Your task to perform on an android device: open app "Cash App" (install if not already installed) and go to login screen Image 0: 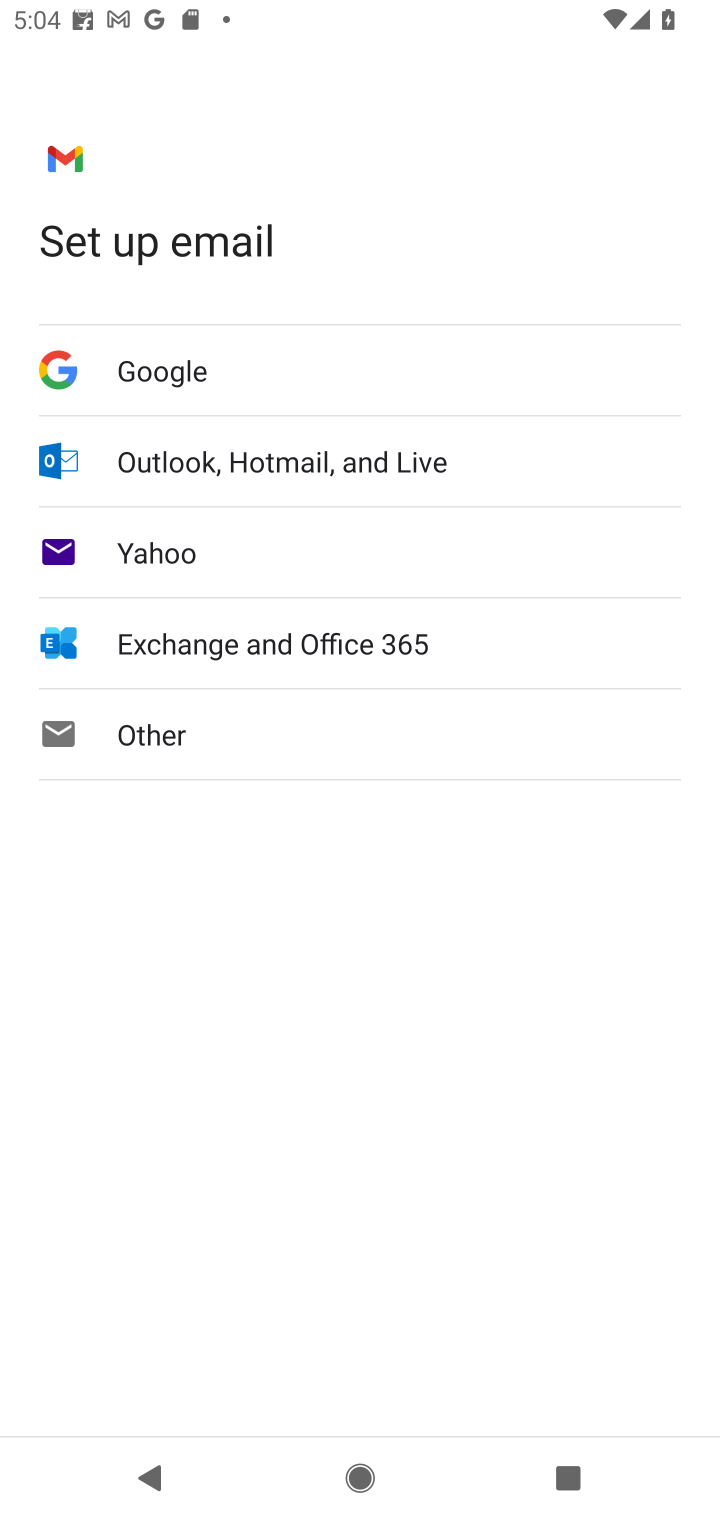
Step 0: press home button
Your task to perform on an android device: open app "Cash App" (install if not already installed) and go to login screen Image 1: 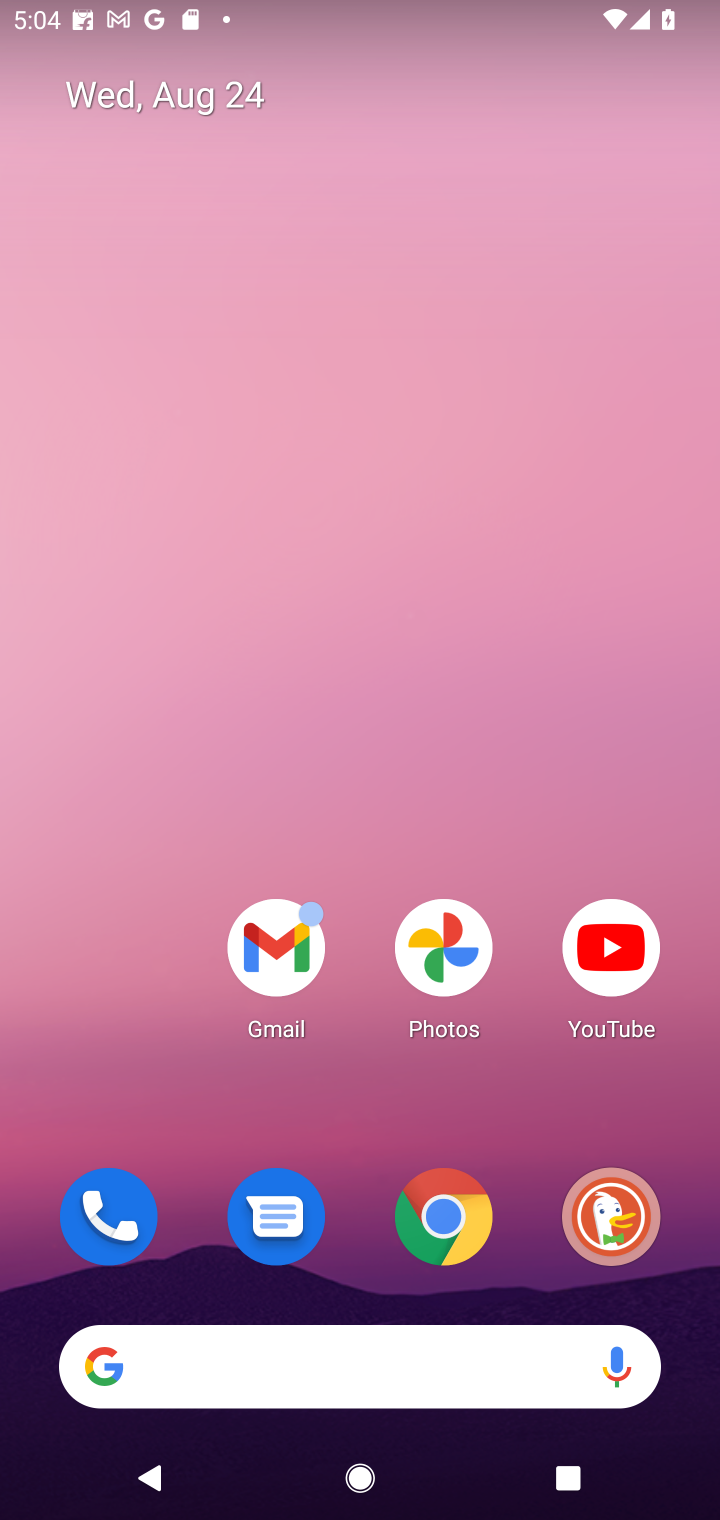
Step 1: drag from (370, 1026) to (364, 239)
Your task to perform on an android device: open app "Cash App" (install if not already installed) and go to login screen Image 2: 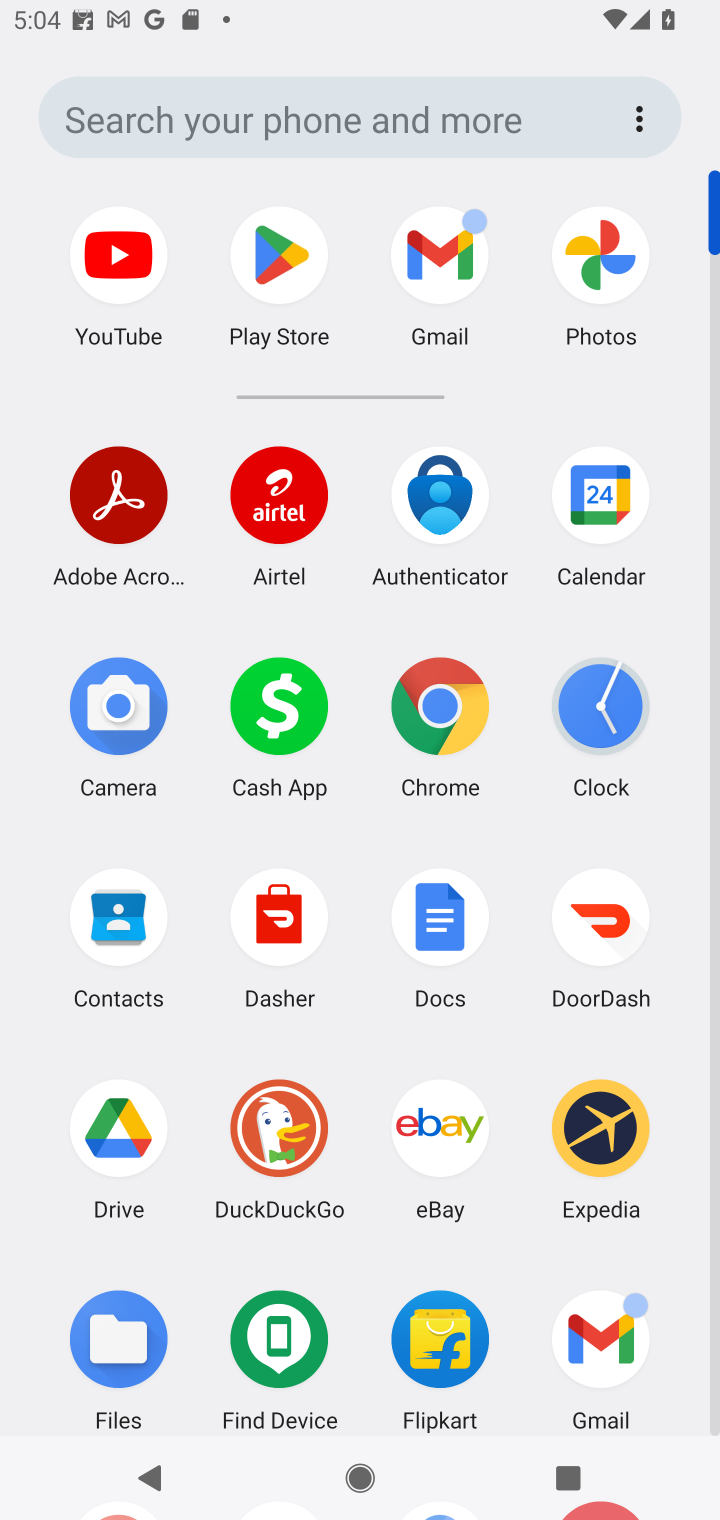
Step 2: click (317, 250)
Your task to perform on an android device: open app "Cash App" (install if not already installed) and go to login screen Image 3: 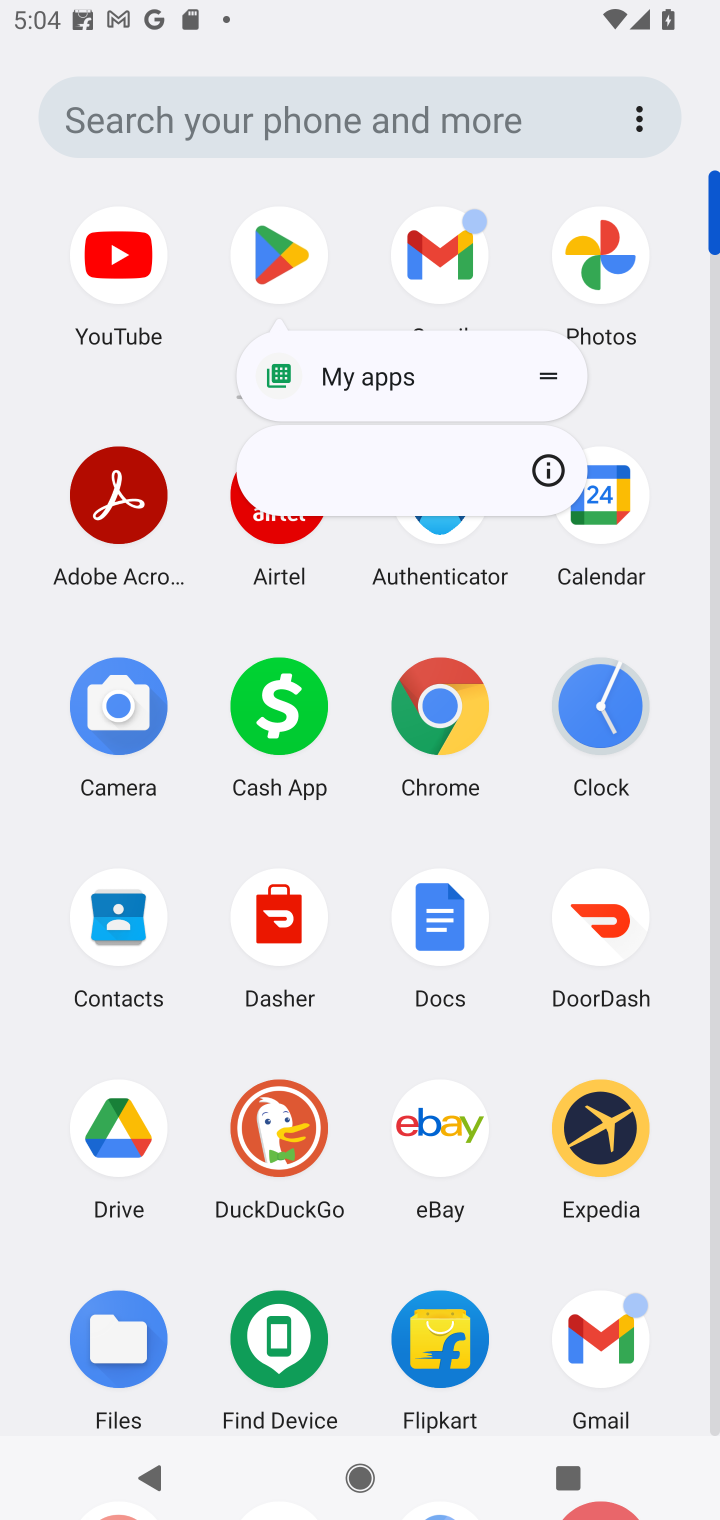
Step 3: click (254, 257)
Your task to perform on an android device: open app "Cash App" (install if not already installed) and go to login screen Image 4: 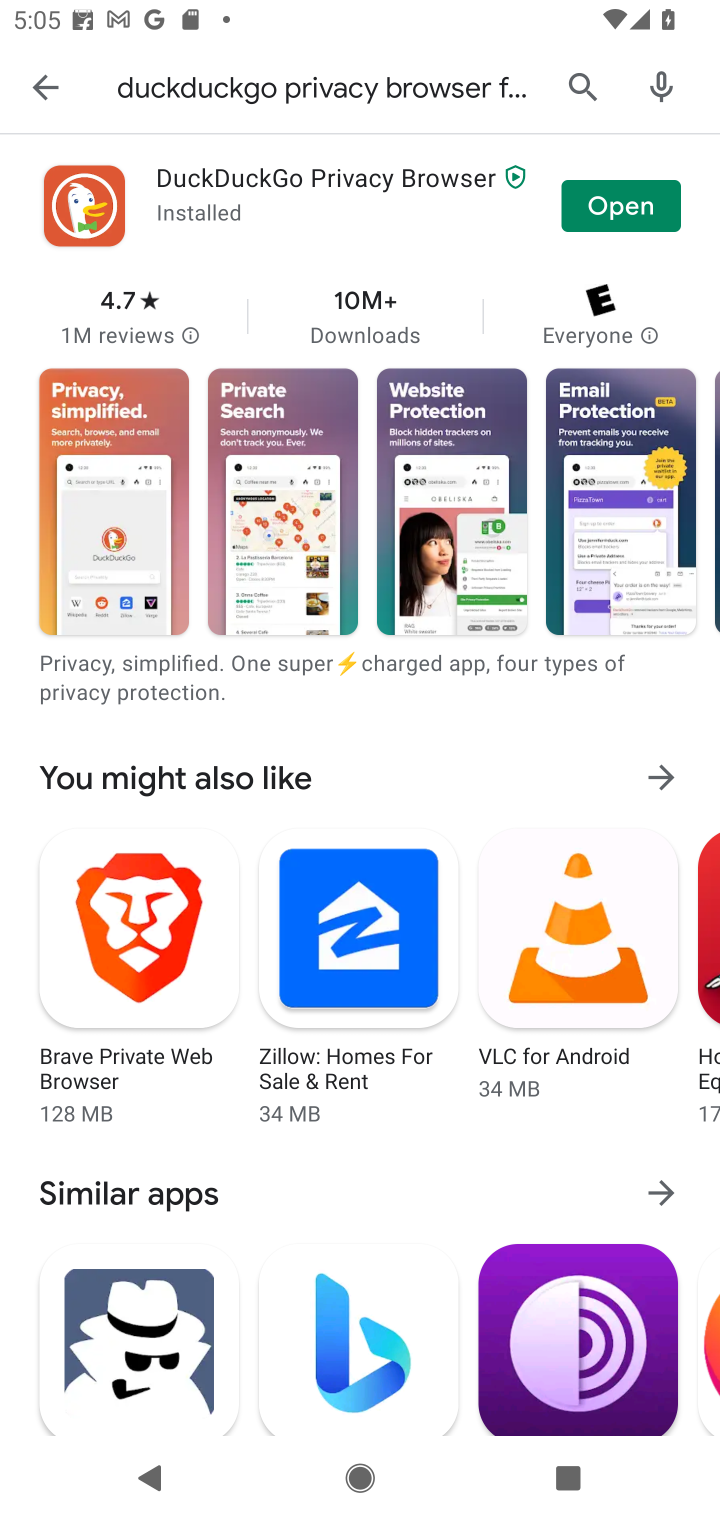
Step 4: click (572, 75)
Your task to perform on an android device: open app "Cash App" (install if not already installed) and go to login screen Image 5: 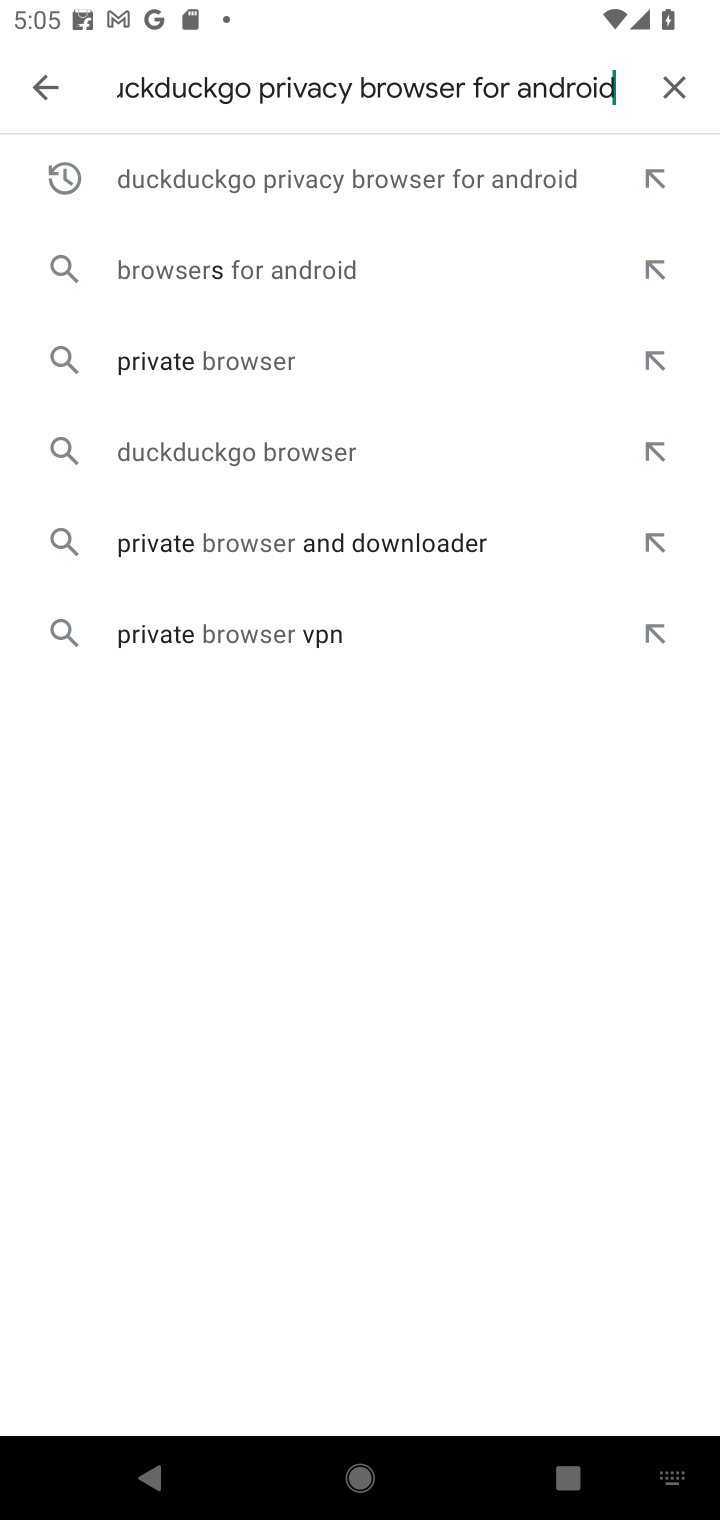
Step 5: click (653, 74)
Your task to perform on an android device: open app "Cash App" (install if not already installed) and go to login screen Image 6: 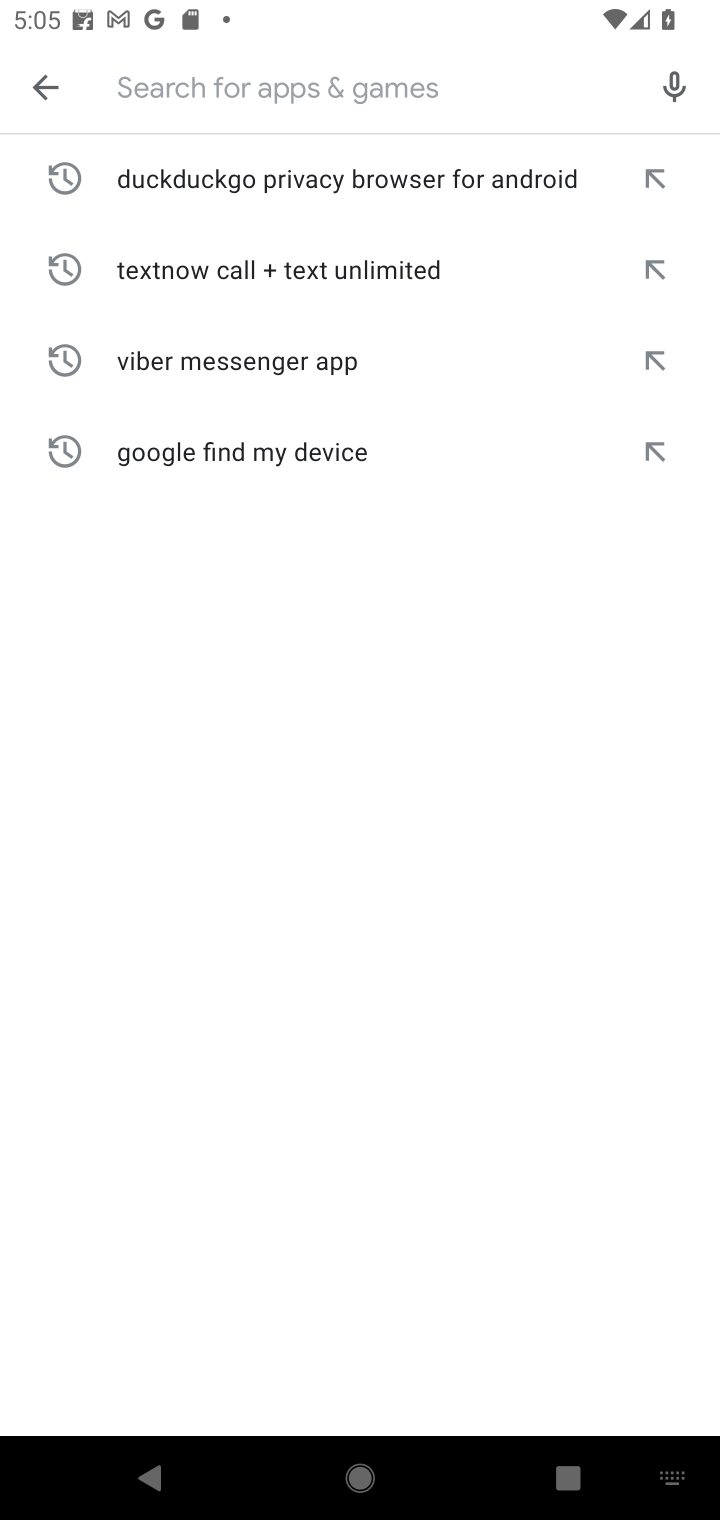
Step 6: type "Cash App"
Your task to perform on an android device: open app "Cash App" (install if not already installed) and go to login screen Image 7: 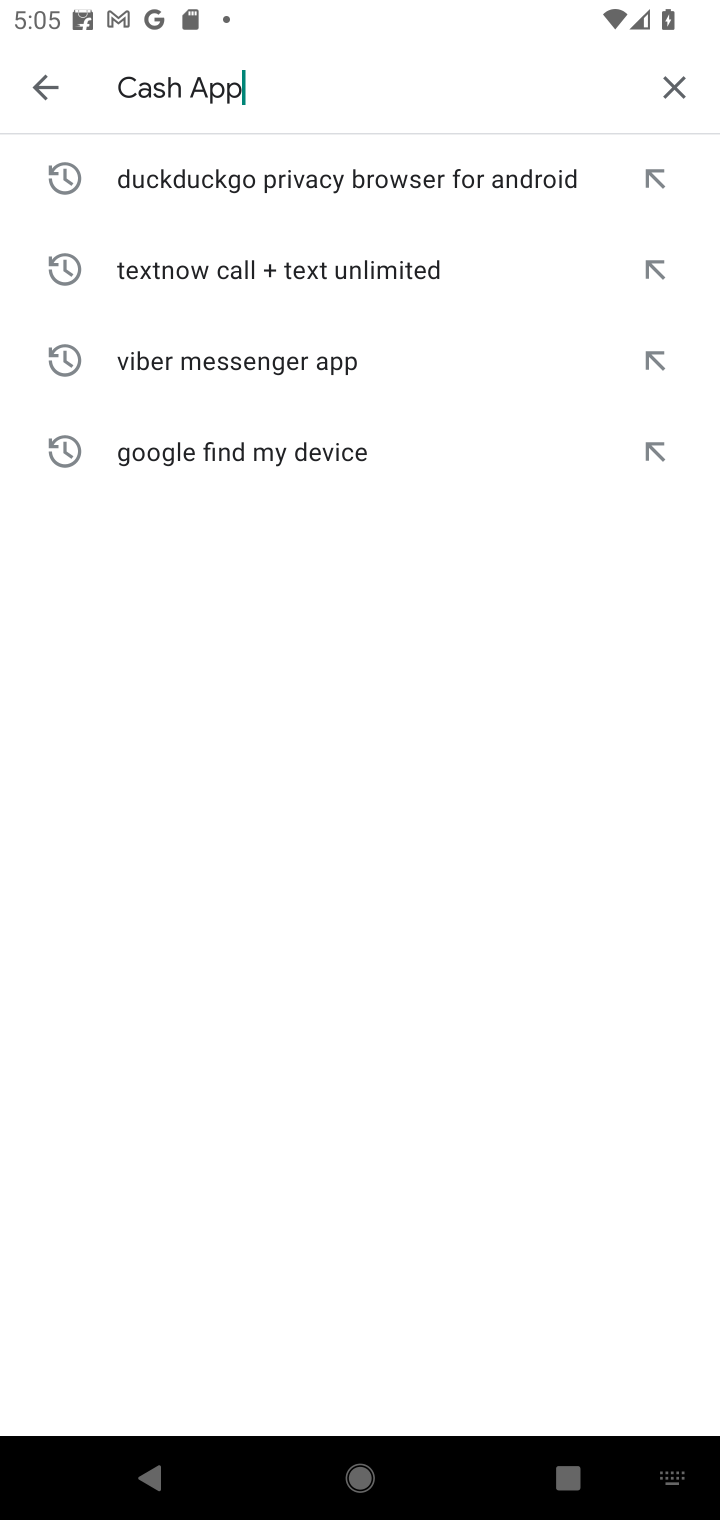
Step 7: type ""
Your task to perform on an android device: open app "Cash App" (install if not already installed) and go to login screen Image 8: 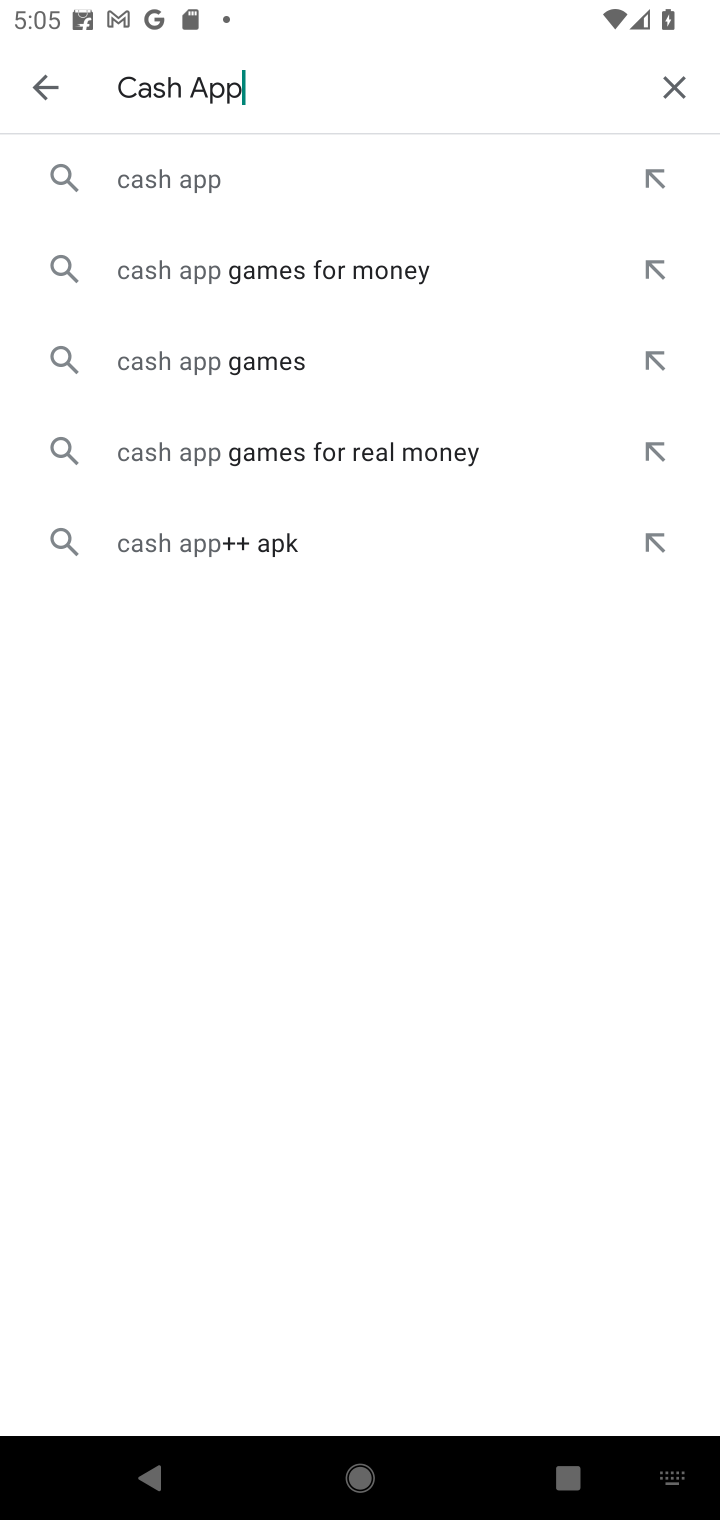
Step 8: click (285, 171)
Your task to perform on an android device: open app "Cash App" (install if not already installed) and go to login screen Image 9: 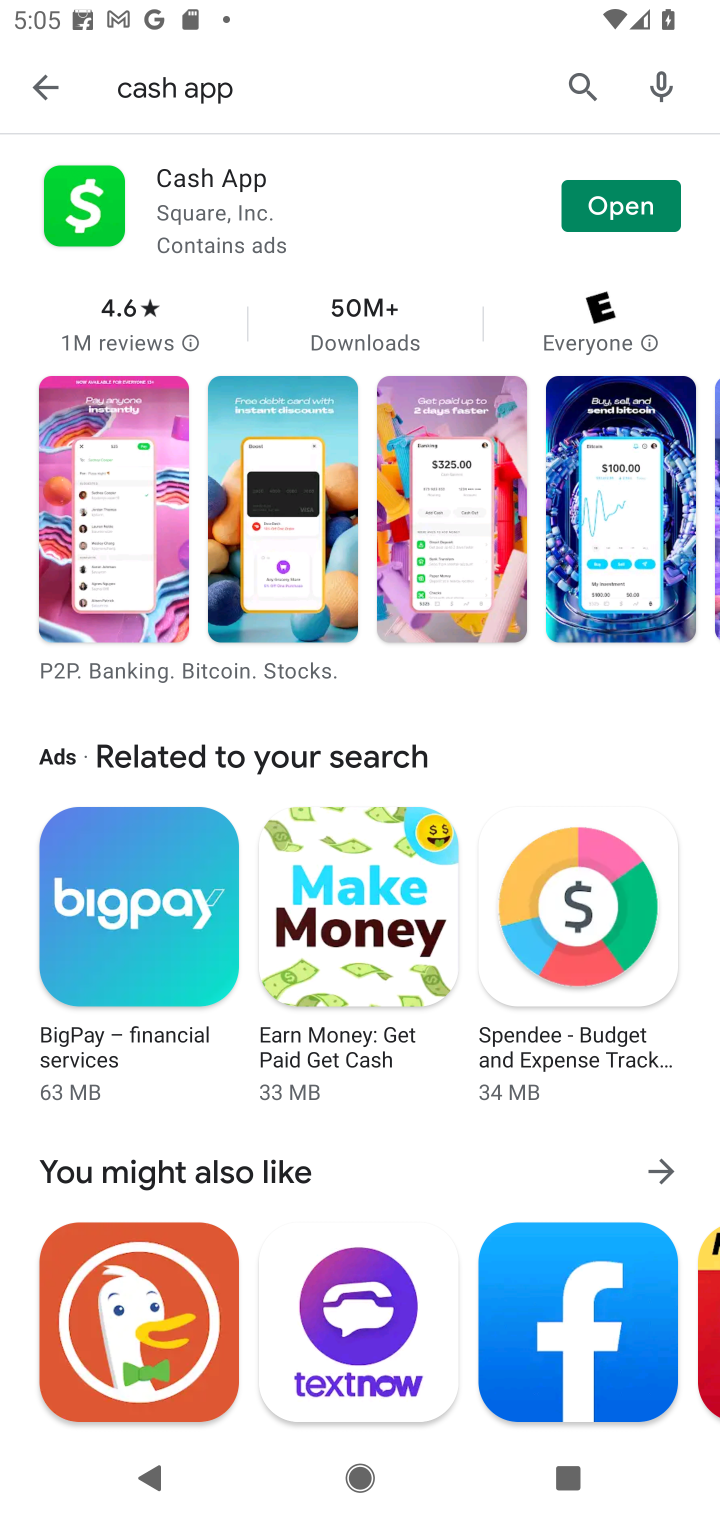
Step 9: click (592, 203)
Your task to perform on an android device: open app "Cash App" (install if not already installed) and go to login screen Image 10: 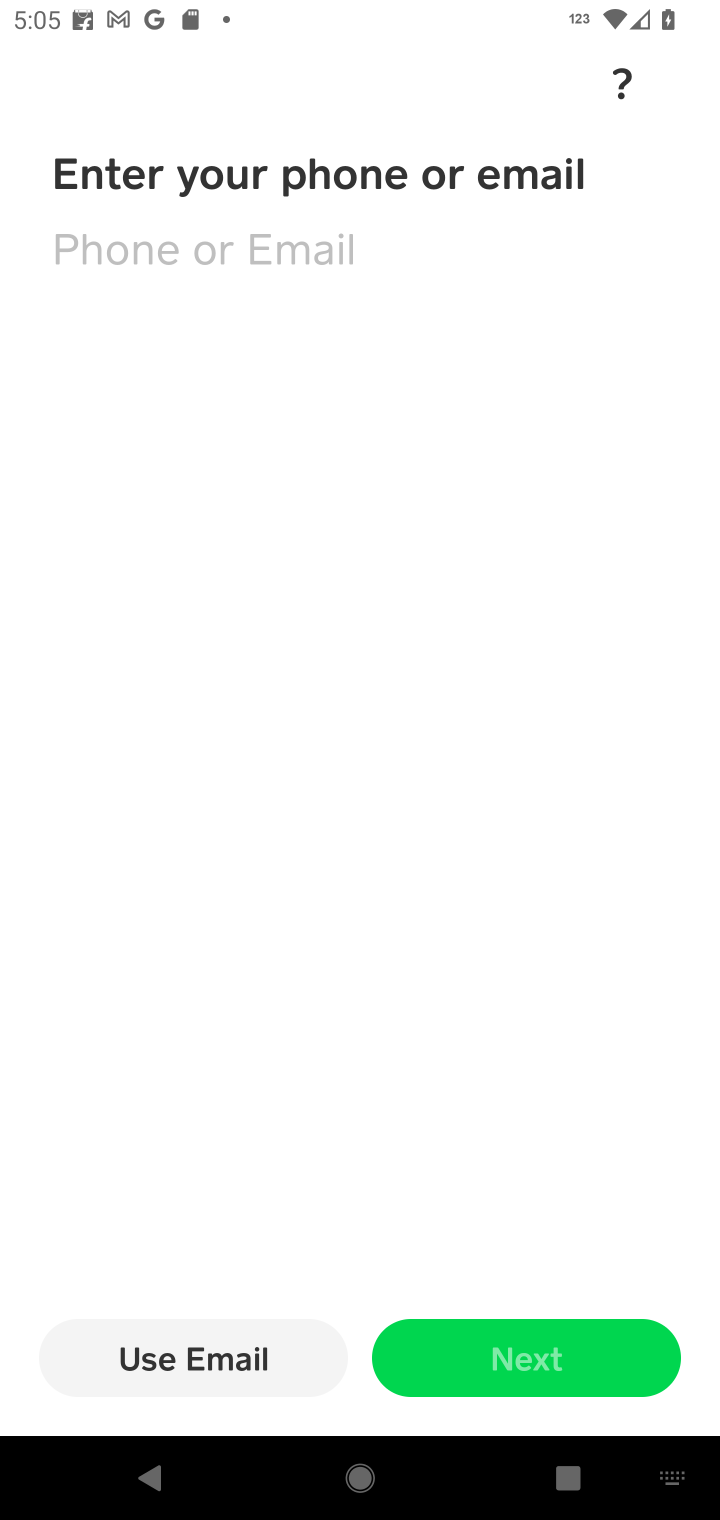
Step 10: task complete